Your task to perform on an android device: empty trash in google photos Image 0: 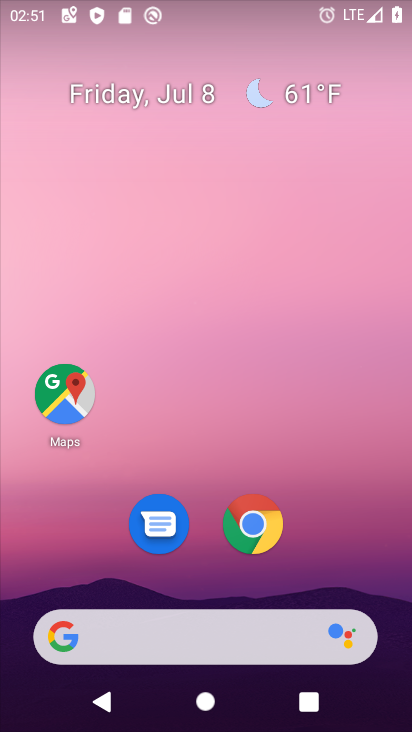
Step 0: drag from (309, 513) to (249, 43)
Your task to perform on an android device: empty trash in google photos Image 1: 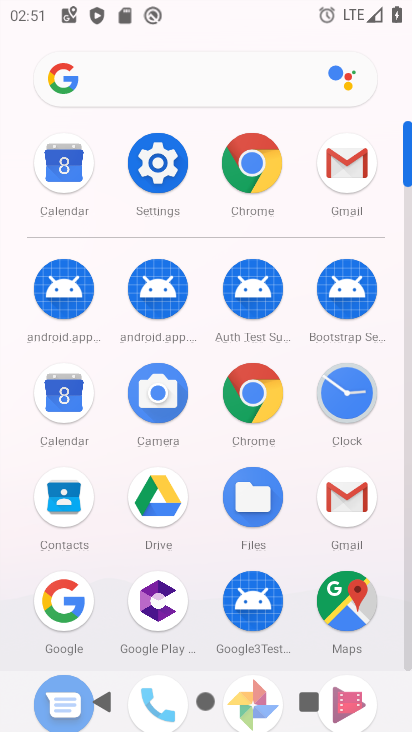
Step 1: drag from (193, 428) to (205, 112)
Your task to perform on an android device: empty trash in google photos Image 2: 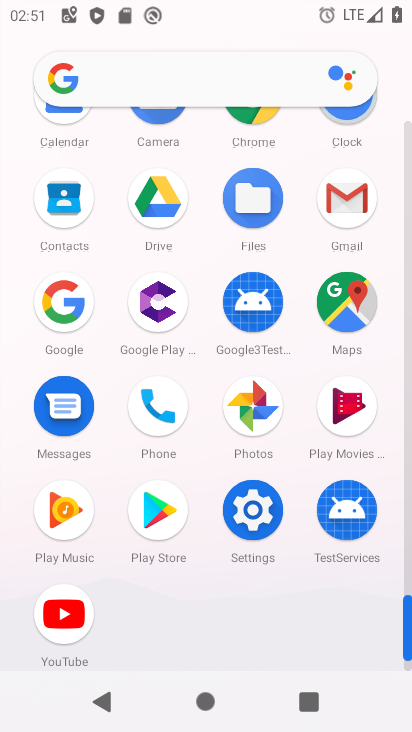
Step 2: click (251, 409)
Your task to perform on an android device: empty trash in google photos Image 3: 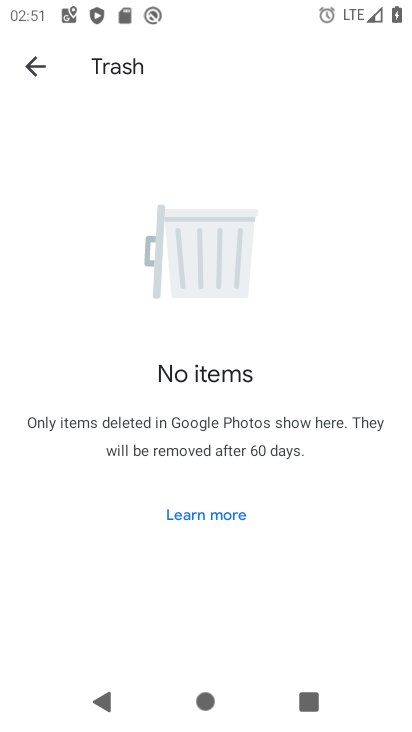
Step 3: task complete